Your task to perform on an android device: Open Google Maps Image 0: 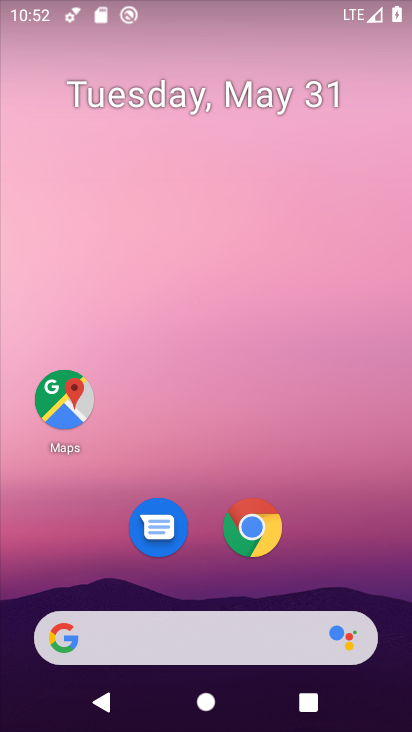
Step 0: click (63, 408)
Your task to perform on an android device: Open Google Maps Image 1: 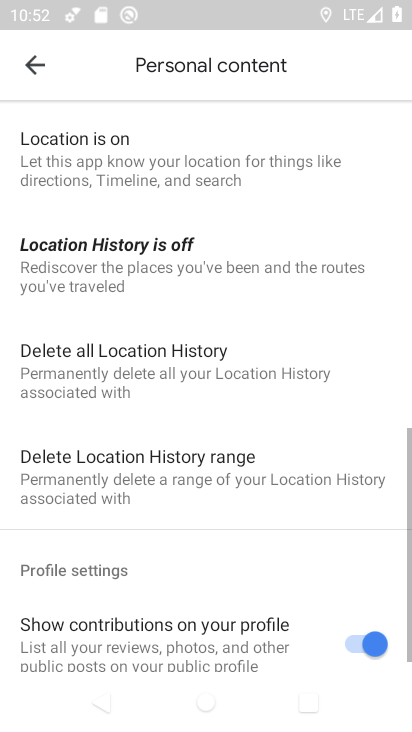
Step 1: click (36, 69)
Your task to perform on an android device: Open Google Maps Image 2: 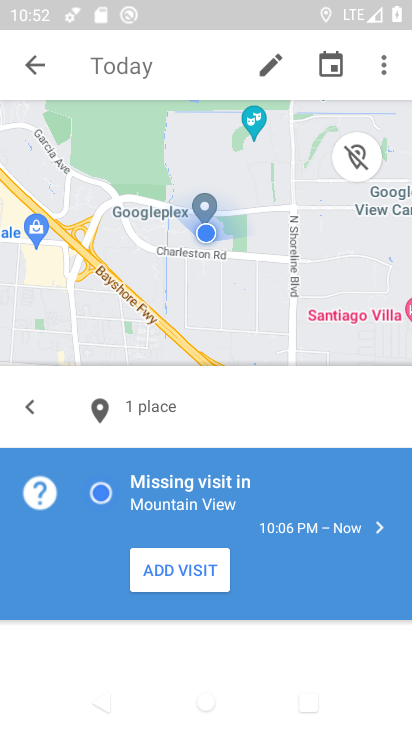
Step 2: click (36, 69)
Your task to perform on an android device: Open Google Maps Image 3: 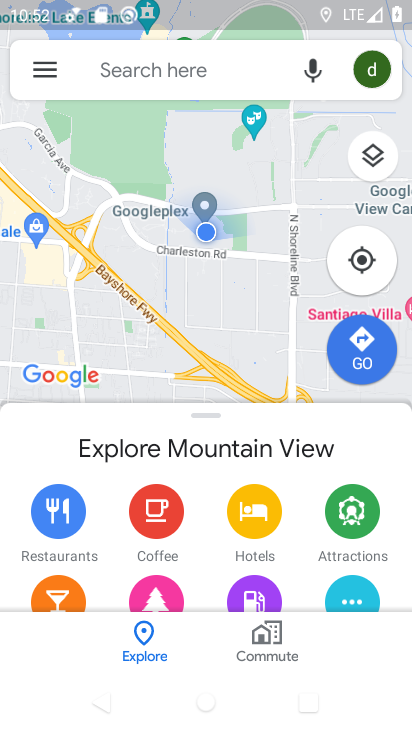
Step 3: task complete